Your task to perform on an android device: Open Chrome and go to settings Image 0: 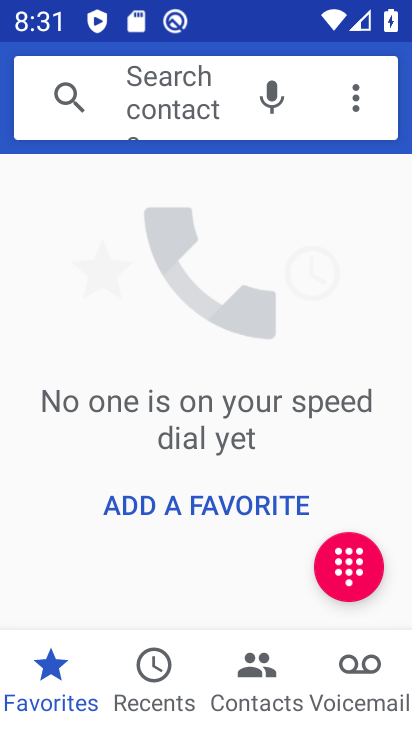
Step 0: press home button
Your task to perform on an android device: Open Chrome and go to settings Image 1: 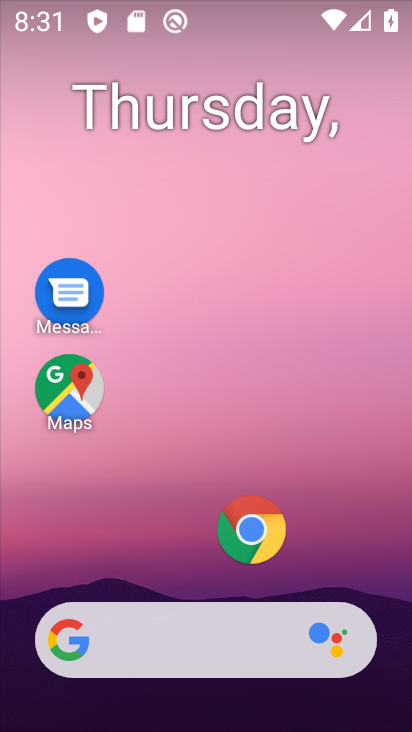
Step 1: click (248, 523)
Your task to perform on an android device: Open Chrome and go to settings Image 2: 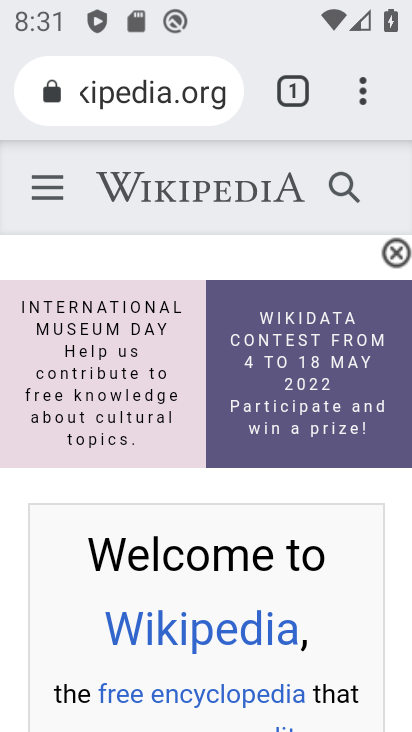
Step 2: click (387, 83)
Your task to perform on an android device: Open Chrome and go to settings Image 3: 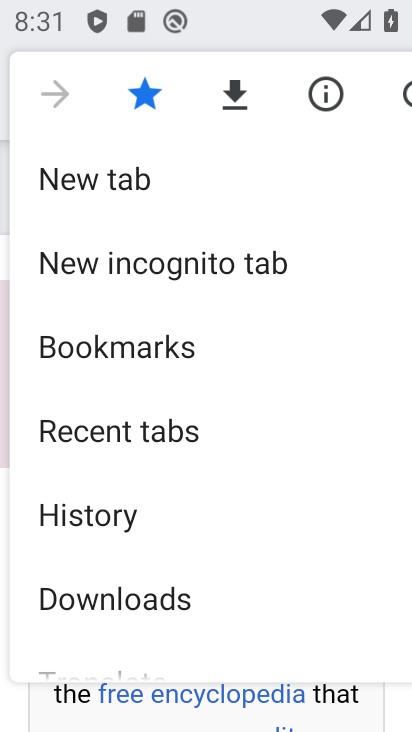
Step 3: drag from (109, 525) to (133, 276)
Your task to perform on an android device: Open Chrome and go to settings Image 4: 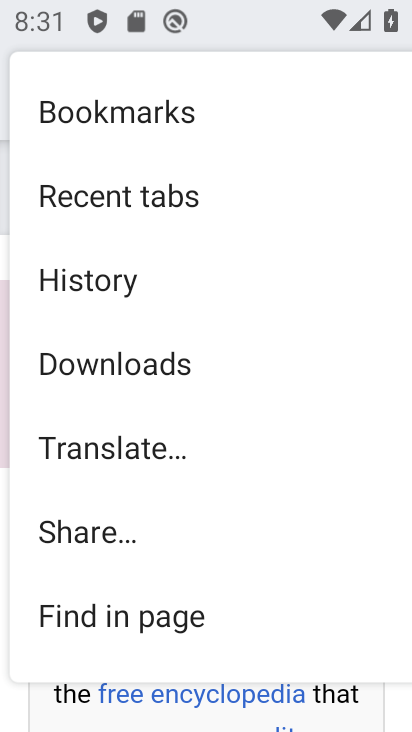
Step 4: drag from (125, 581) to (160, 306)
Your task to perform on an android device: Open Chrome and go to settings Image 5: 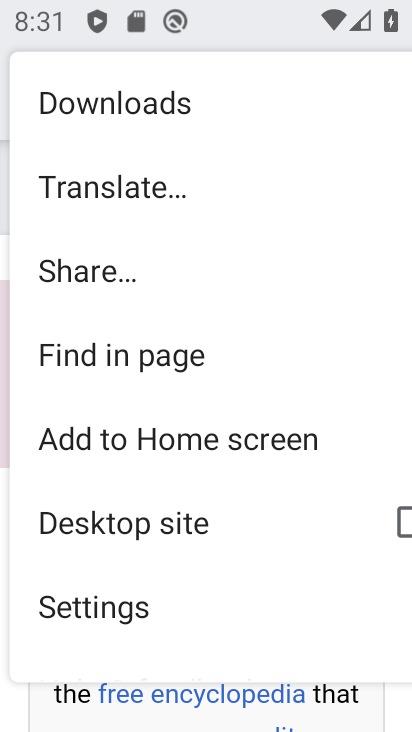
Step 5: click (172, 623)
Your task to perform on an android device: Open Chrome and go to settings Image 6: 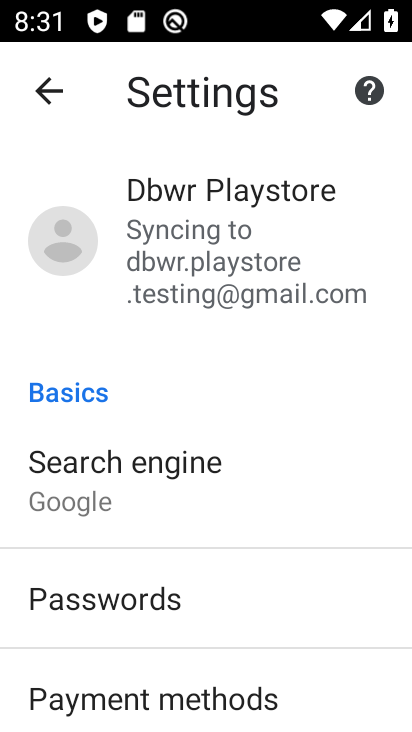
Step 6: task complete